Your task to perform on an android device: Open Google Chrome and open the bookmarks view Image 0: 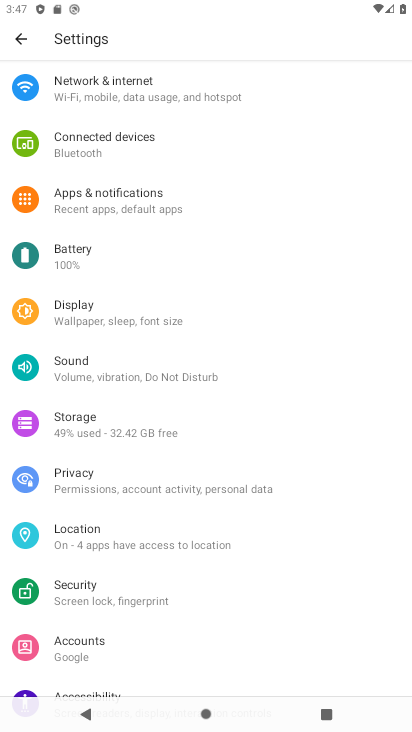
Step 0: press home button
Your task to perform on an android device: Open Google Chrome and open the bookmarks view Image 1: 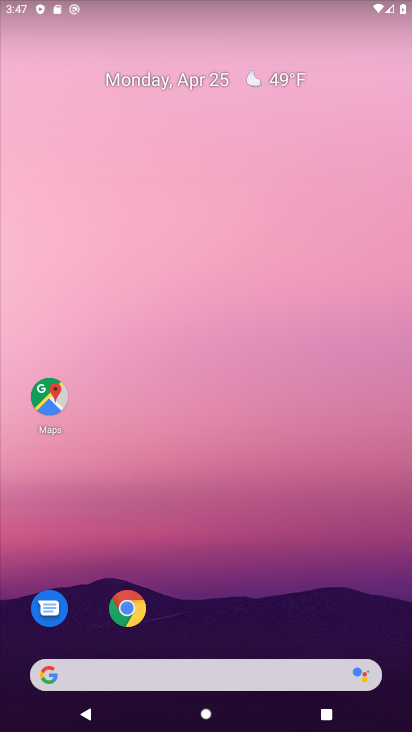
Step 1: drag from (297, 542) to (286, 182)
Your task to perform on an android device: Open Google Chrome and open the bookmarks view Image 2: 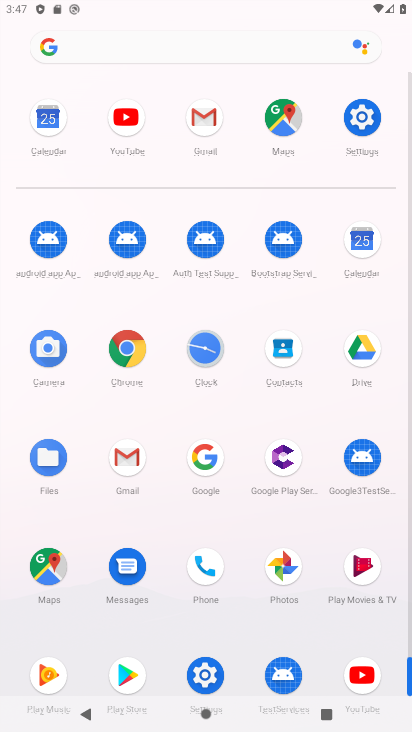
Step 2: click (140, 346)
Your task to perform on an android device: Open Google Chrome and open the bookmarks view Image 3: 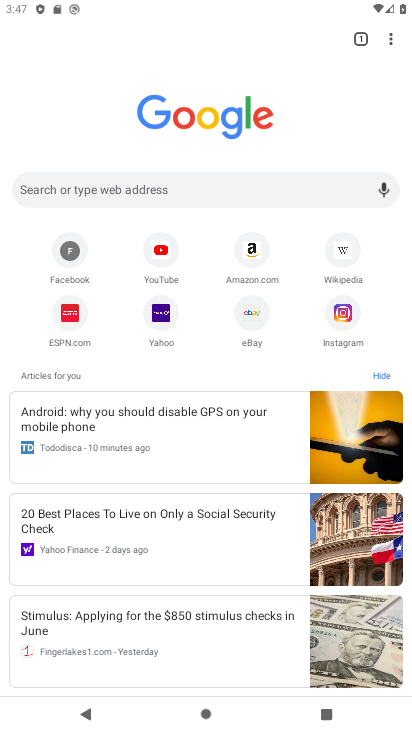
Step 3: click (387, 36)
Your task to perform on an android device: Open Google Chrome and open the bookmarks view Image 4: 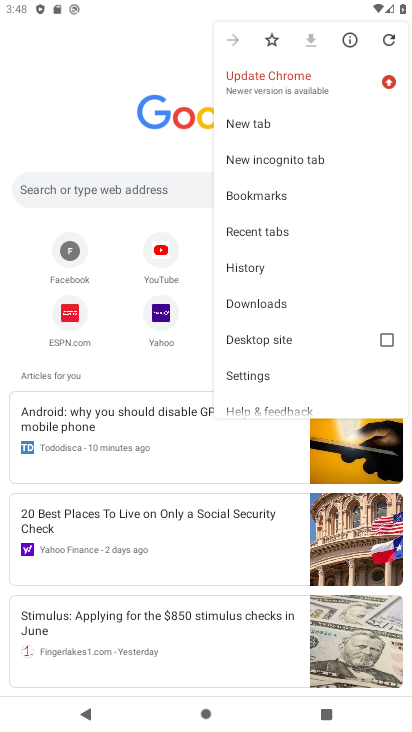
Step 4: click (276, 198)
Your task to perform on an android device: Open Google Chrome and open the bookmarks view Image 5: 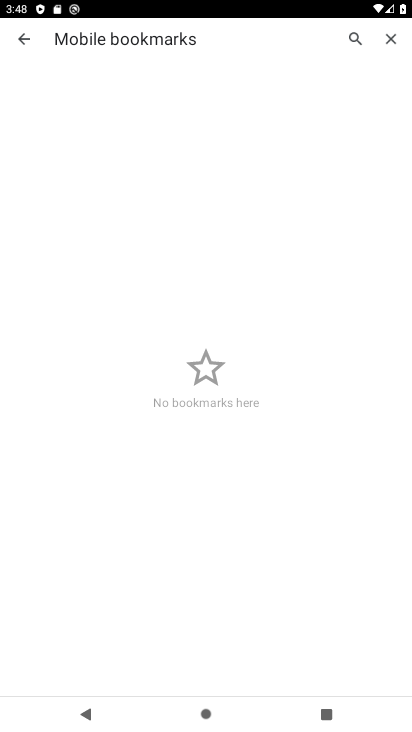
Step 5: task complete